Your task to perform on an android device: Open battery settings Image 0: 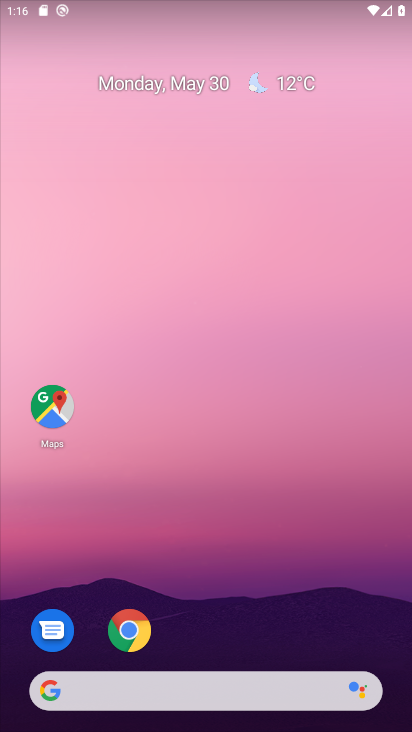
Step 0: drag from (198, 675) to (238, 14)
Your task to perform on an android device: Open battery settings Image 1: 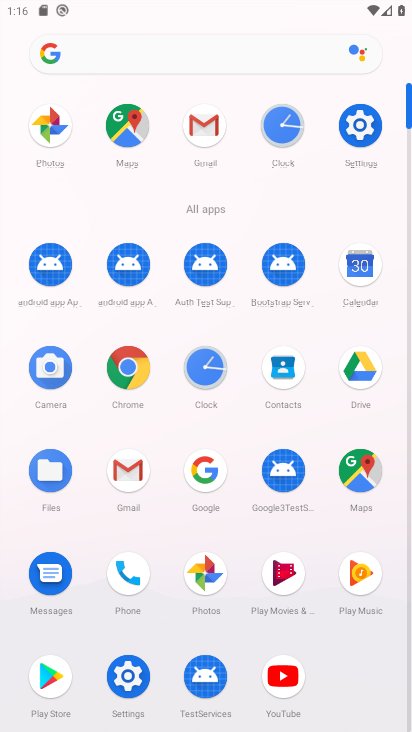
Step 1: click (351, 144)
Your task to perform on an android device: Open battery settings Image 2: 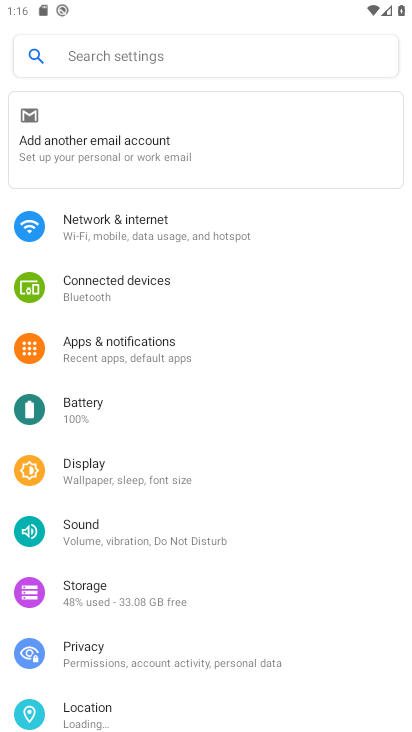
Step 2: click (84, 424)
Your task to perform on an android device: Open battery settings Image 3: 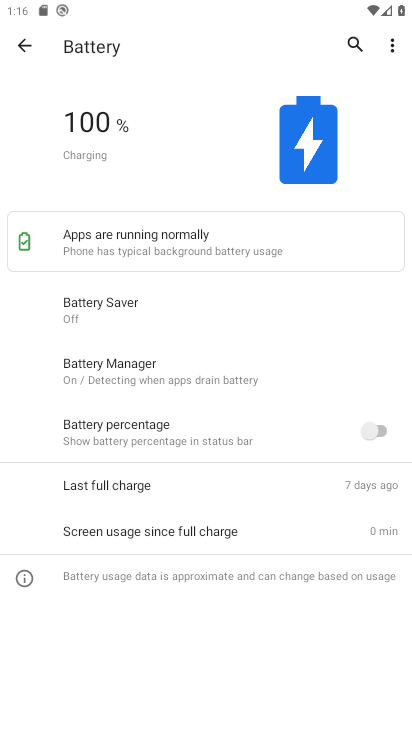
Step 3: task complete